Your task to perform on an android device: Open eBay Image 0: 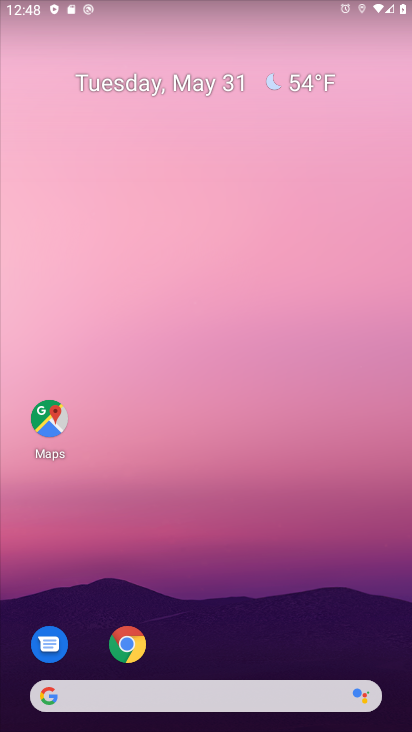
Step 0: press home button
Your task to perform on an android device: Open eBay Image 1: 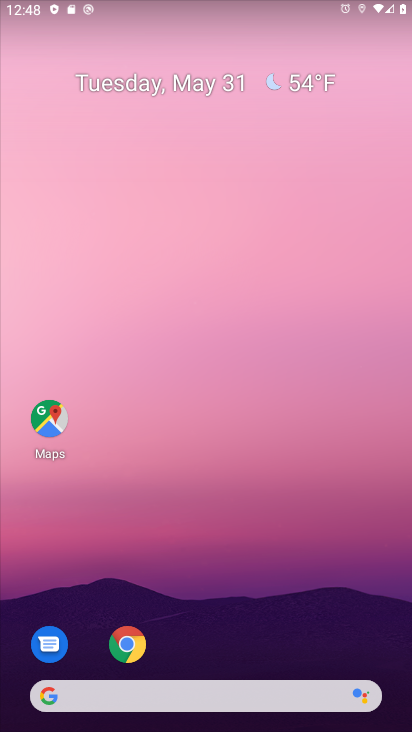
Step 1: click (48, 686)
Your task to perform on an android device: Open eBay Image 2: 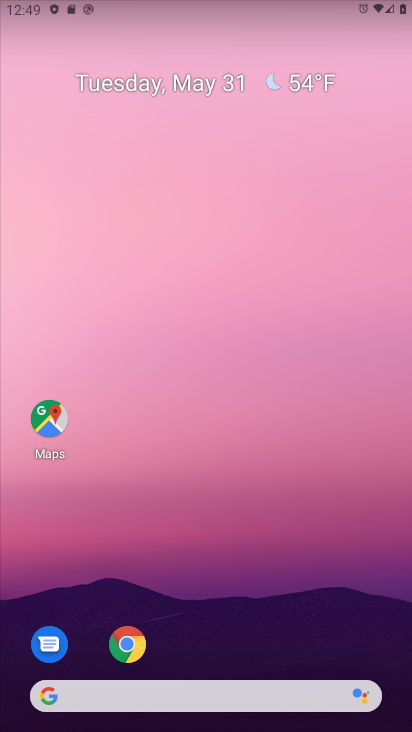
Step 2: click (49, 701)
Your task to perform on an android device: Open eBay Image 3: 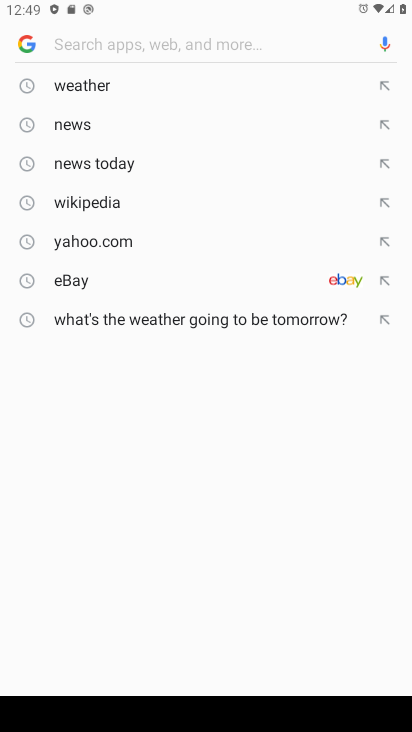
Step 3: click (81, 280)
Your task to perform on an android device: Open eBay Image 4: 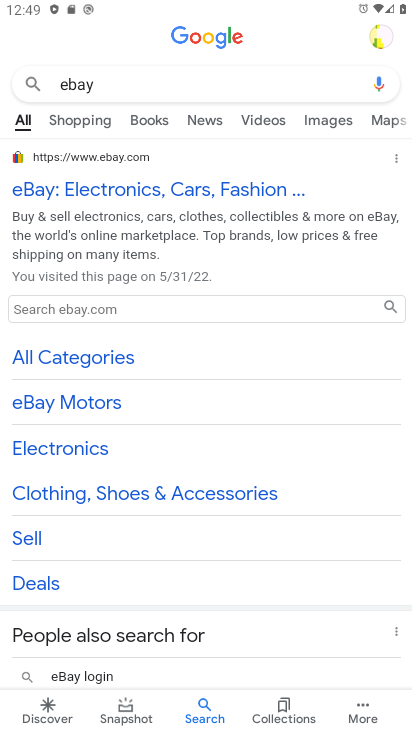
Step 4: click (155, 193)
Your task to perform on an android device: Open eBay Image 5: 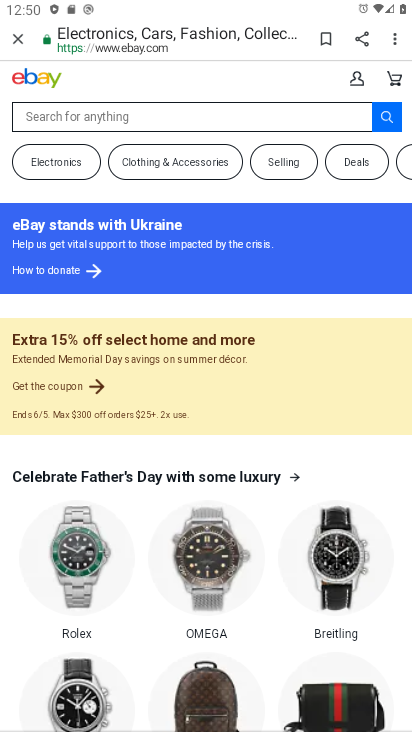
Step 5: task complete